Your task to perform on an android device: set the timer Image 0: 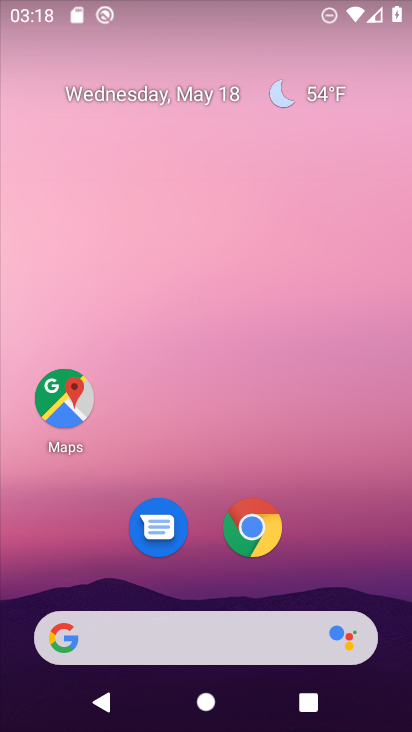
Step 0: drag from (234, 586) to (167, 98)
Your task to perform on an android device: set the timer Image 1: 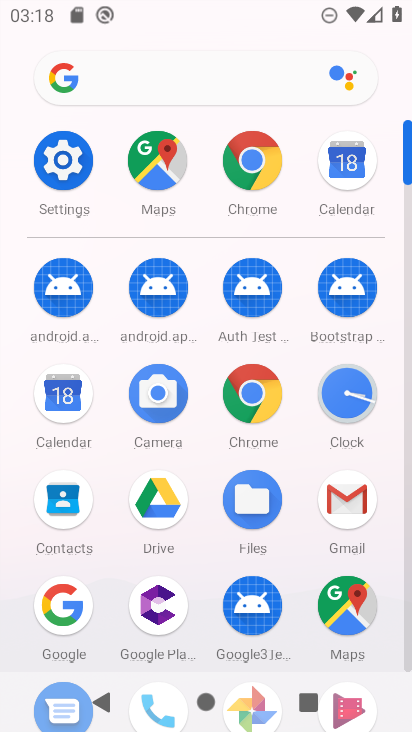
Step 1: click (345, 396)
Your task to perform on an android device: set the timer Image 2: 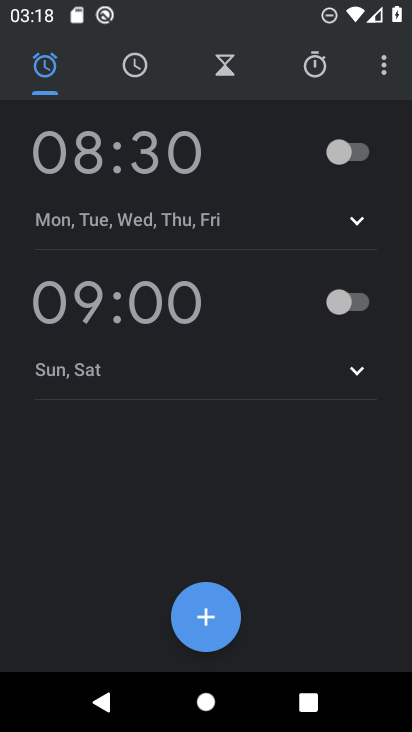
Step 2: click (139, 65)
Your task to perform on an android device: set the timer Image 3: 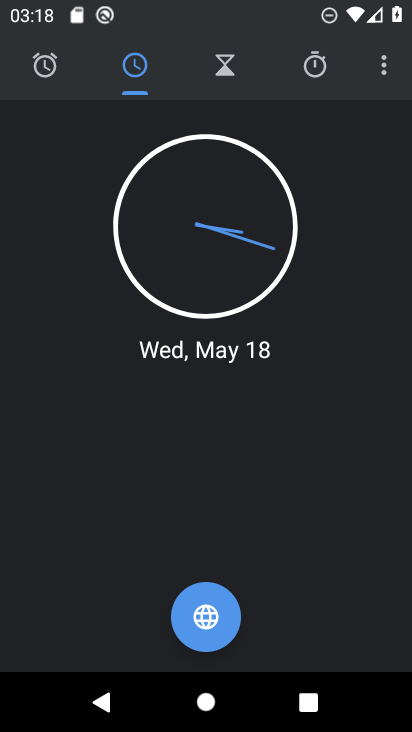
Step 3: click (211, 70)
Your task to perform on an android device: set the timer Image 4: 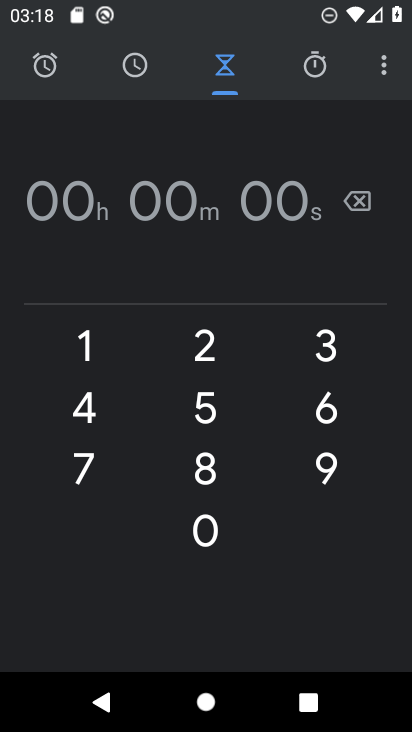
Step 4: click (313, 67)
Your task to perform on an android device: set the timer Image 5: 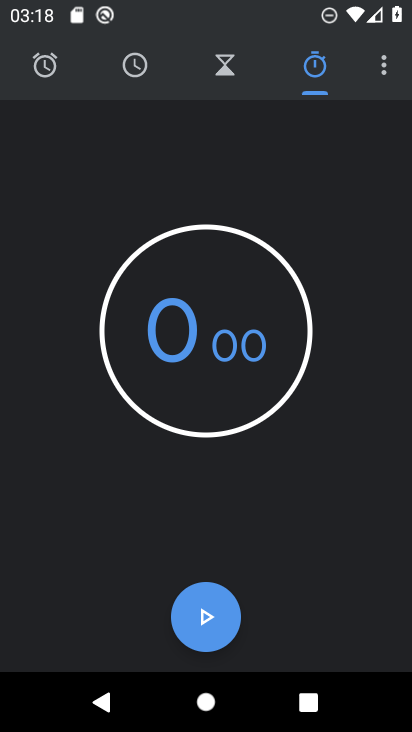
Step 5: click (246, 62)
Your task to perform on an android device: set the timer Image 6: 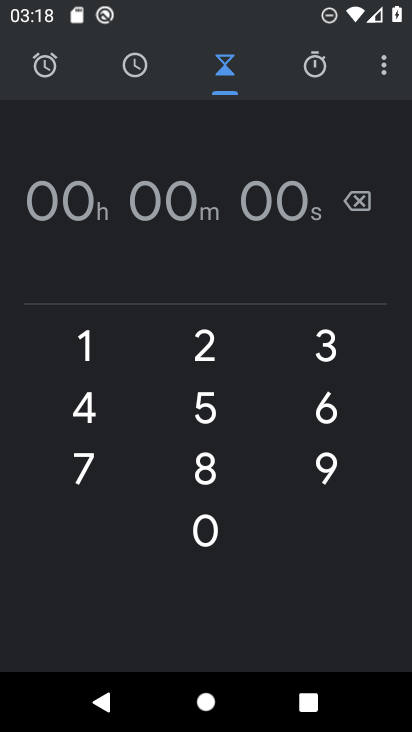
Step 6: click (199, 320)
Your task to perform on an android device: set the timer Image 7: 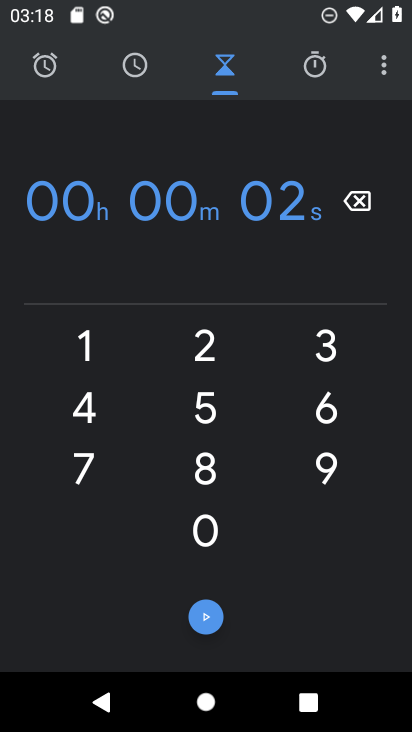
Step 7: click (215, 413)
Your task to perform on an android device: set the timer Image 8: 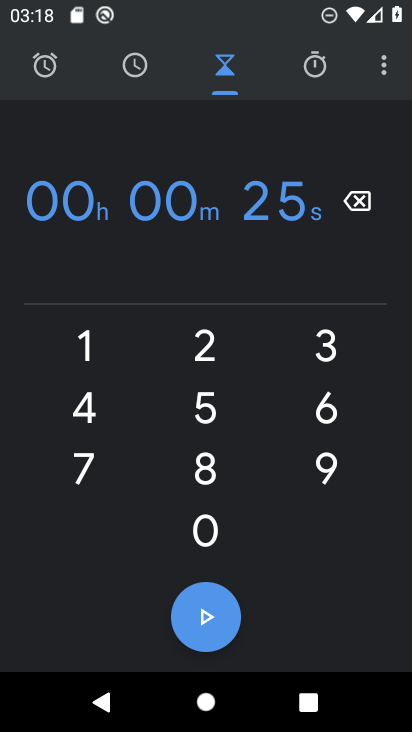
Step 8: click (180, 625)
Your task to perform on an android device: set the timer Image 9: 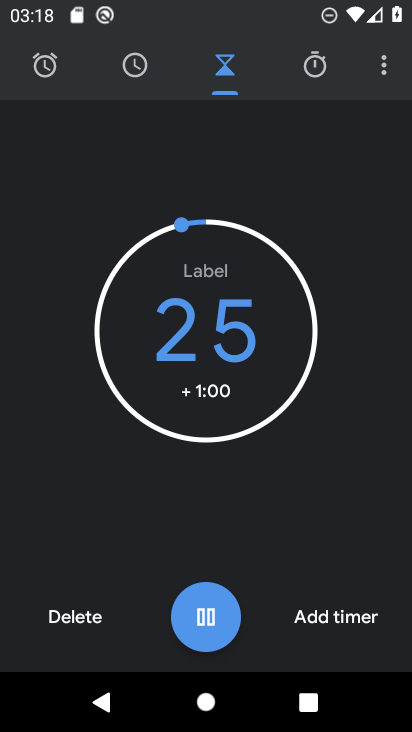
Step 9: task complete